Your task to perform on an android device: check out phone information Image 0: 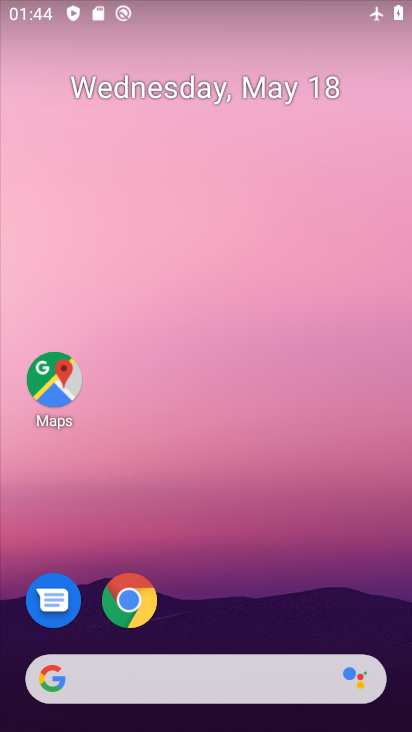
Step 0: drag from (186, 620) to (166, 217)
Your task to perform on an android device: check out phone information Image 1: 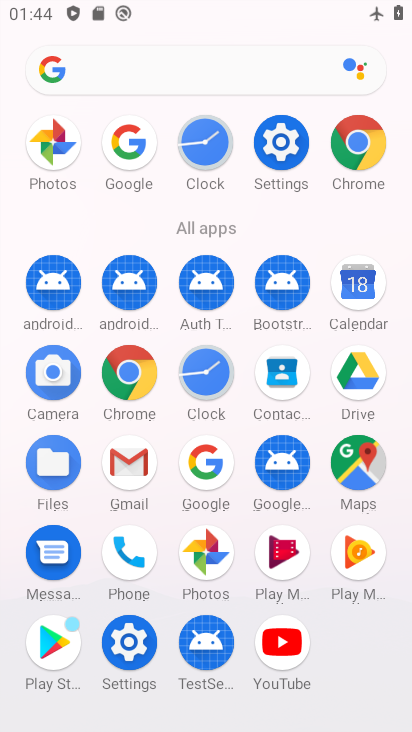
Step 1: click (129, 557)
Your task to perform on an android device: check out phone information Image 2: 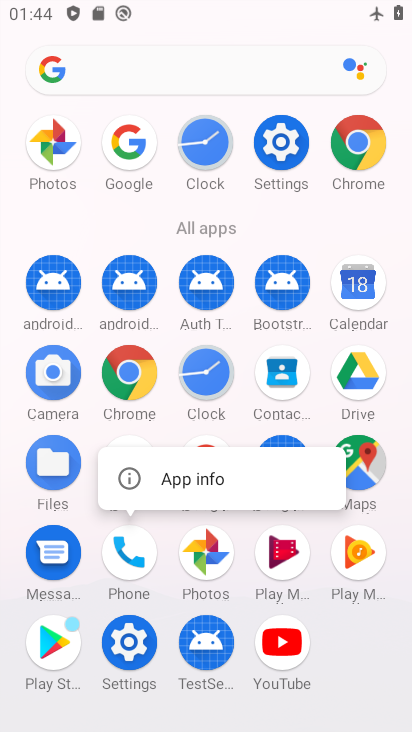
Step 2: click (175, 481)
Your task to perform on an android device: check out phone information Image 3: 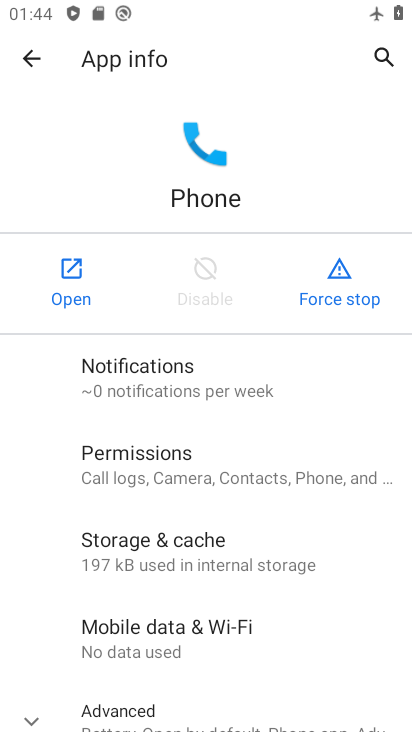
Step 3: click (144, 711)
Your task to perform on an android device: check out phone information Image 4: 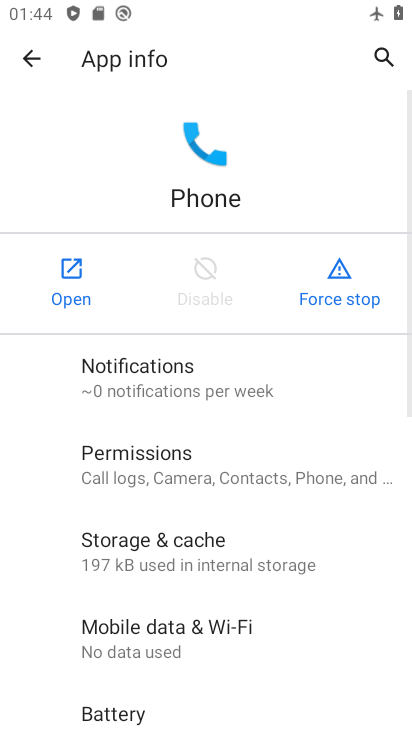
Step 4: task complete